Your task to perform on an android device: turn notification dots on Image 0: 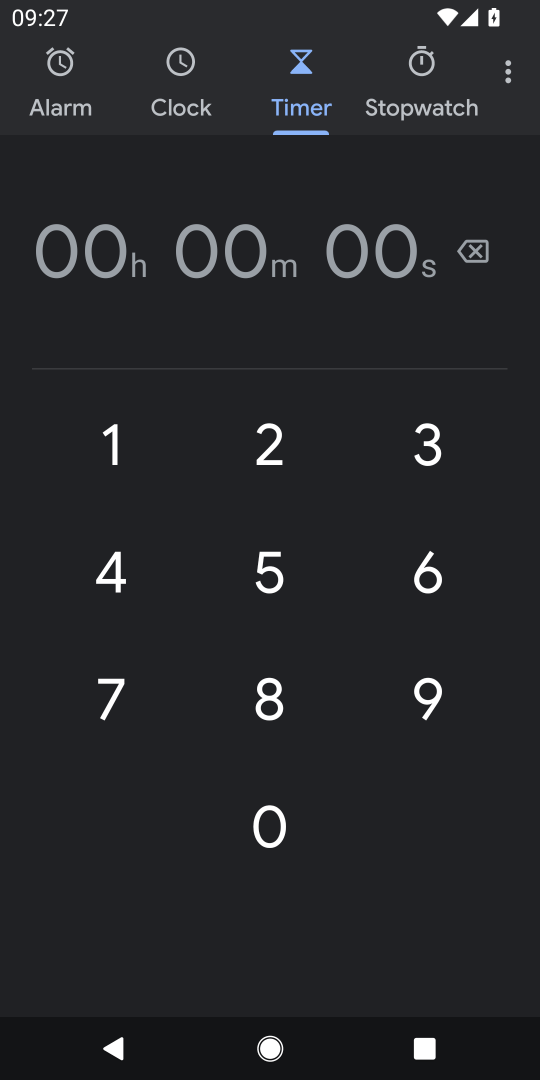
Step 0: press home button
Your task to perform on an android device: turn notification dots on Image 1: 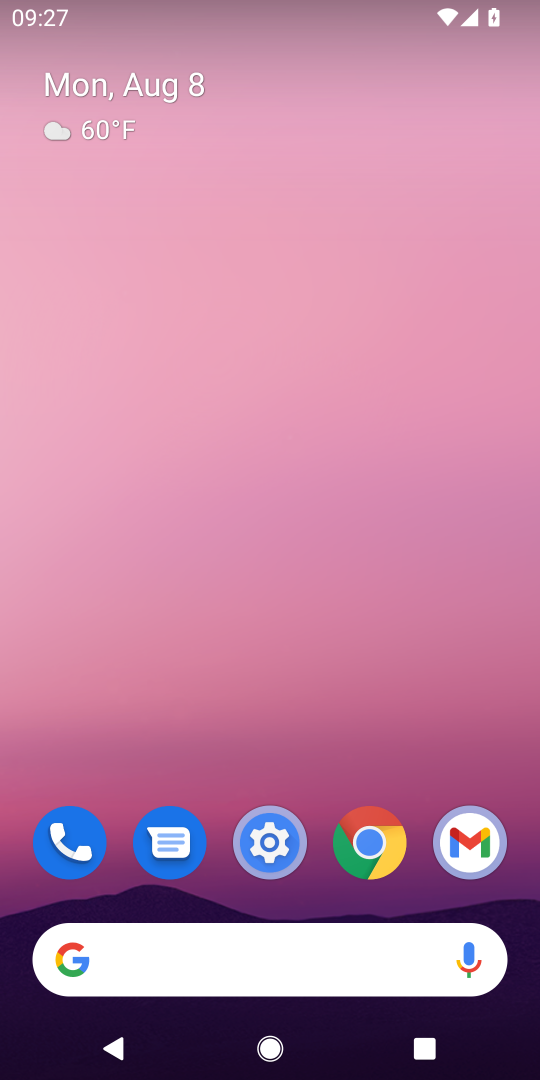
Step 1: click (266, 839)
Your task to perform on an android device: turn notification dots on Image 2: 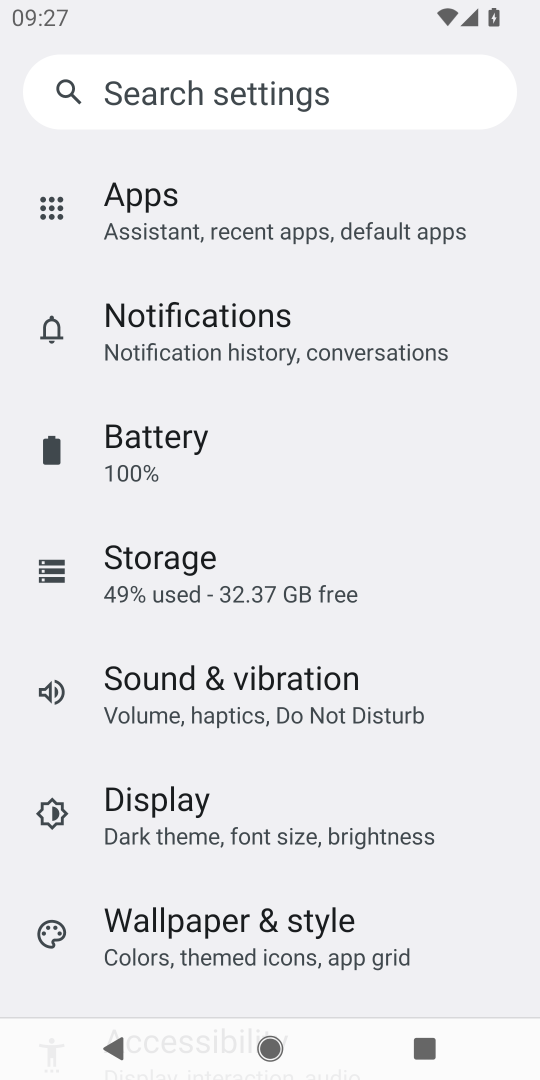
Step 2: click (226, 353)
Your task to perform on an android device: turn notification dots on Image 3: 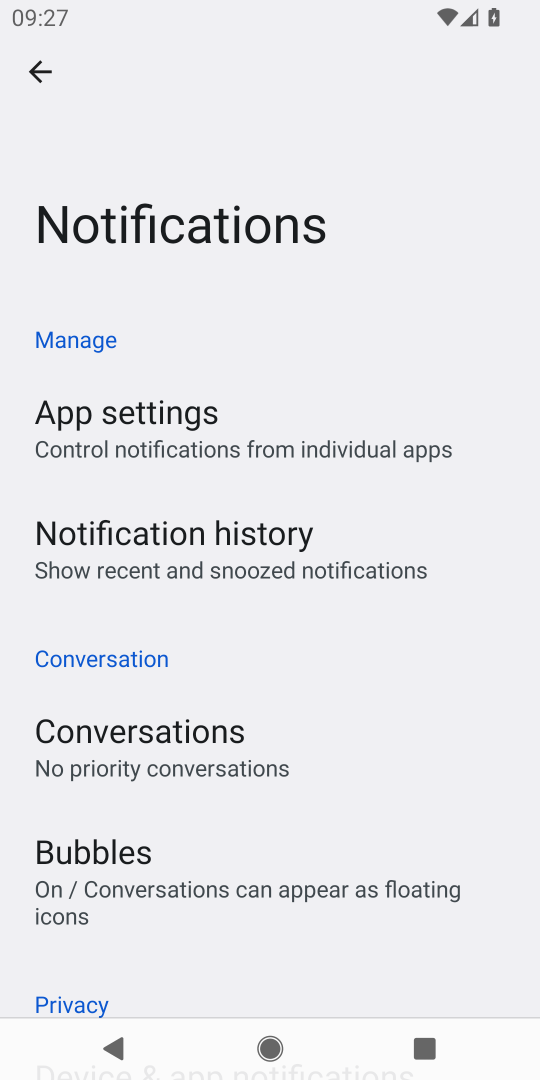
Step 3: task complete